Your task to perform on an android device: Search for seafood restaurants on Google Maps Image 0: 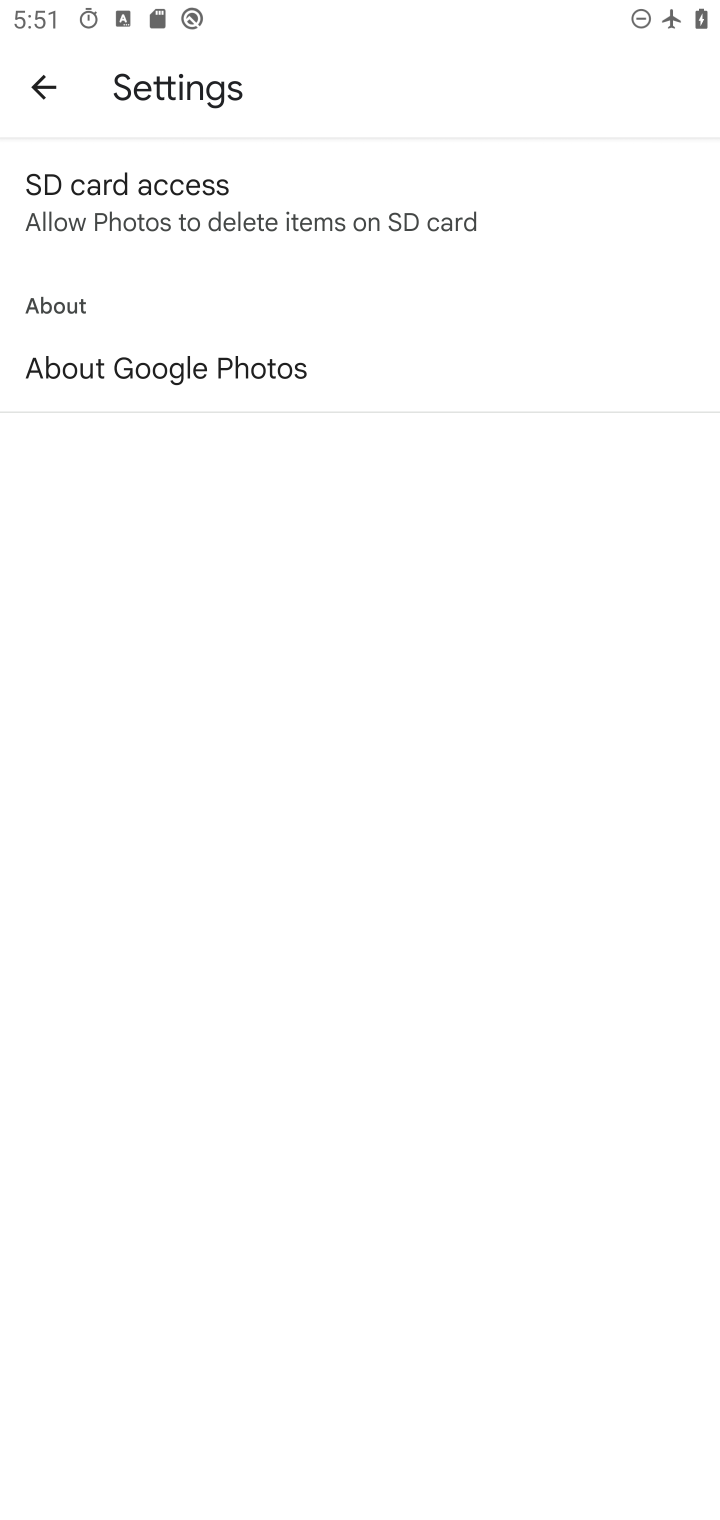
Step 0: press home button
Your task to perform on an android device: Search for seafood restaurants on Google Maps Image 1: 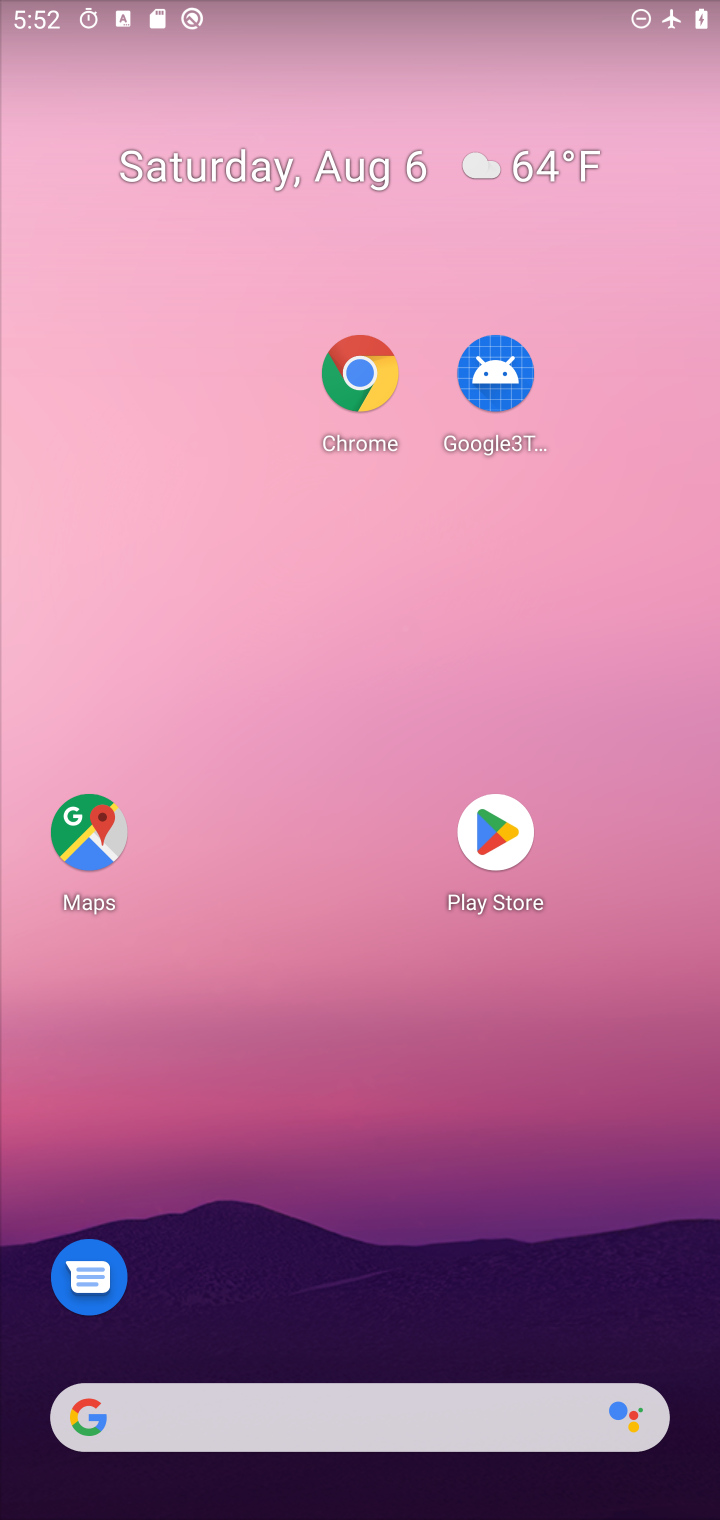
Step 1: drag from (544, 1093) to (600, 277)
Your task to perform on an android device: Search for seafood restaurants on Google Maps Image 2: 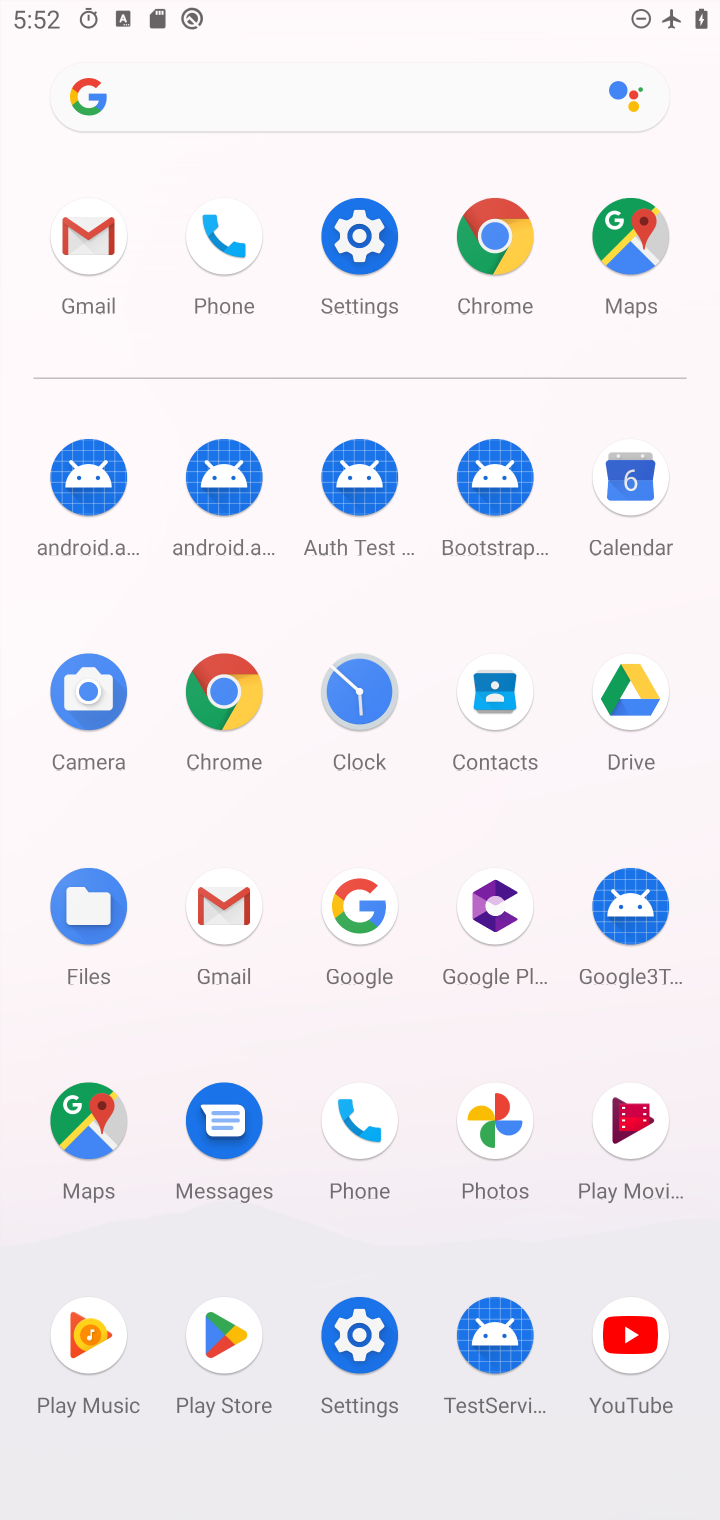
Step 2: click (96, 1139)
Your task to perform on an android device: Search for seafood restaurants on Google Maps Image 3: 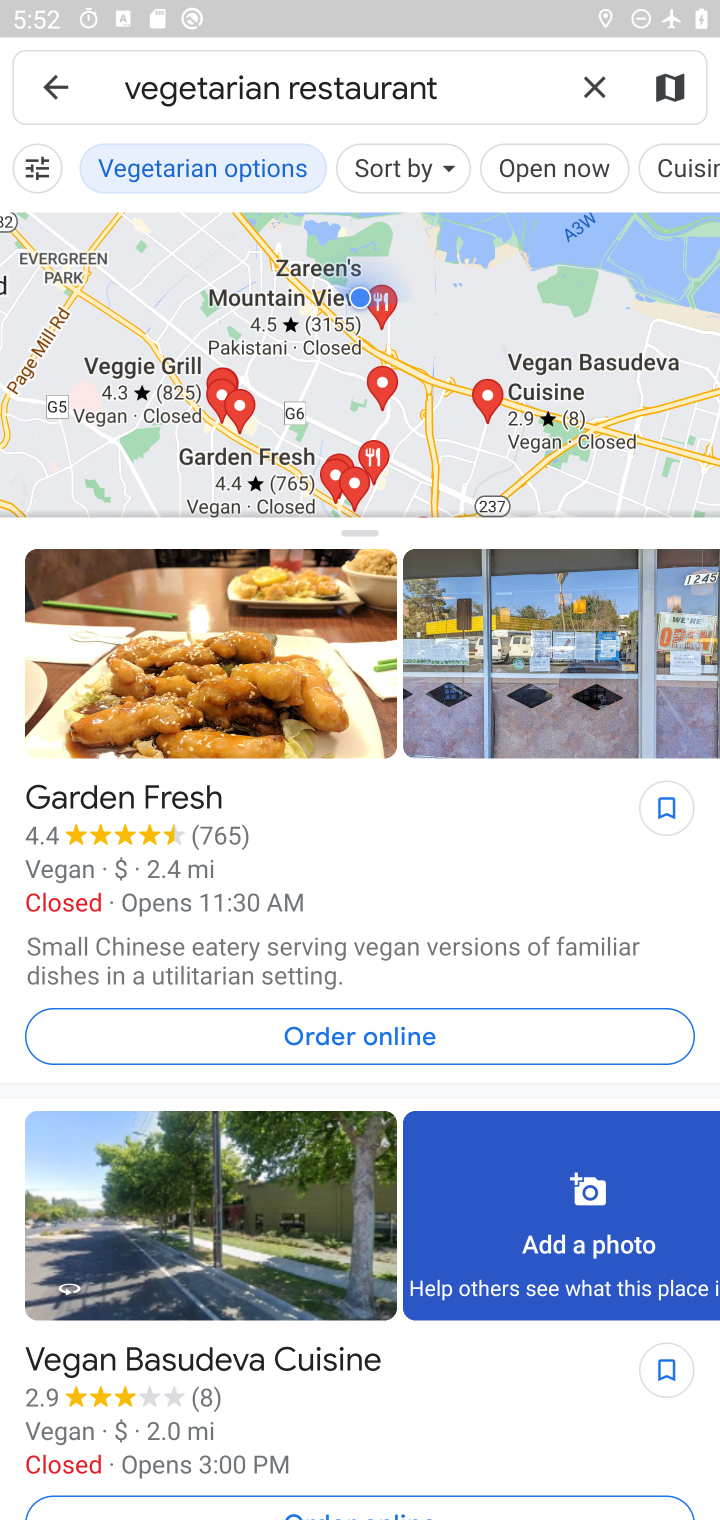
Step 3: click (591, 75)
Your task to perform on an android device: Search for seafood restaurants on Google Maps Image 4: 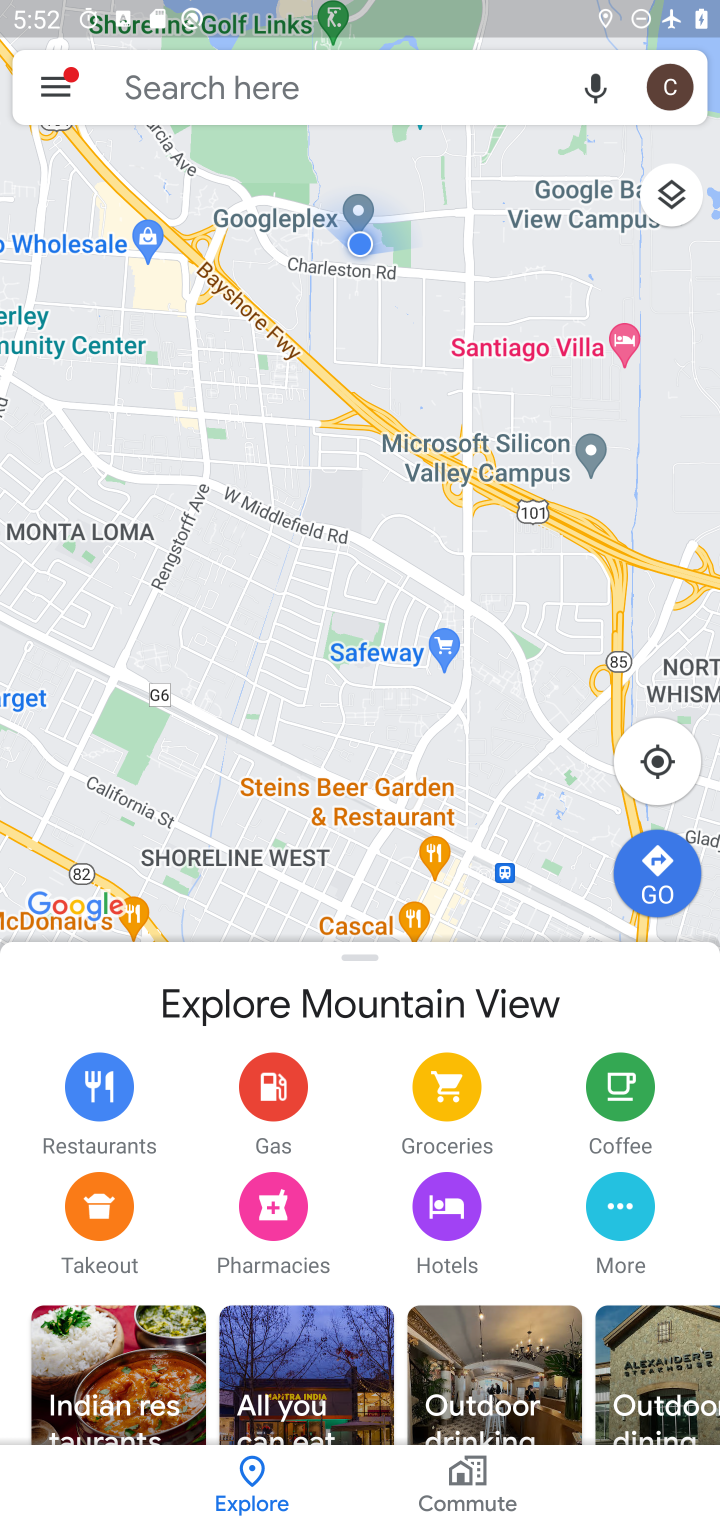
Step 4: click (403, 64)
Your task to perform on an android device: Search for seafood restaurants on Google Maps Image 5: 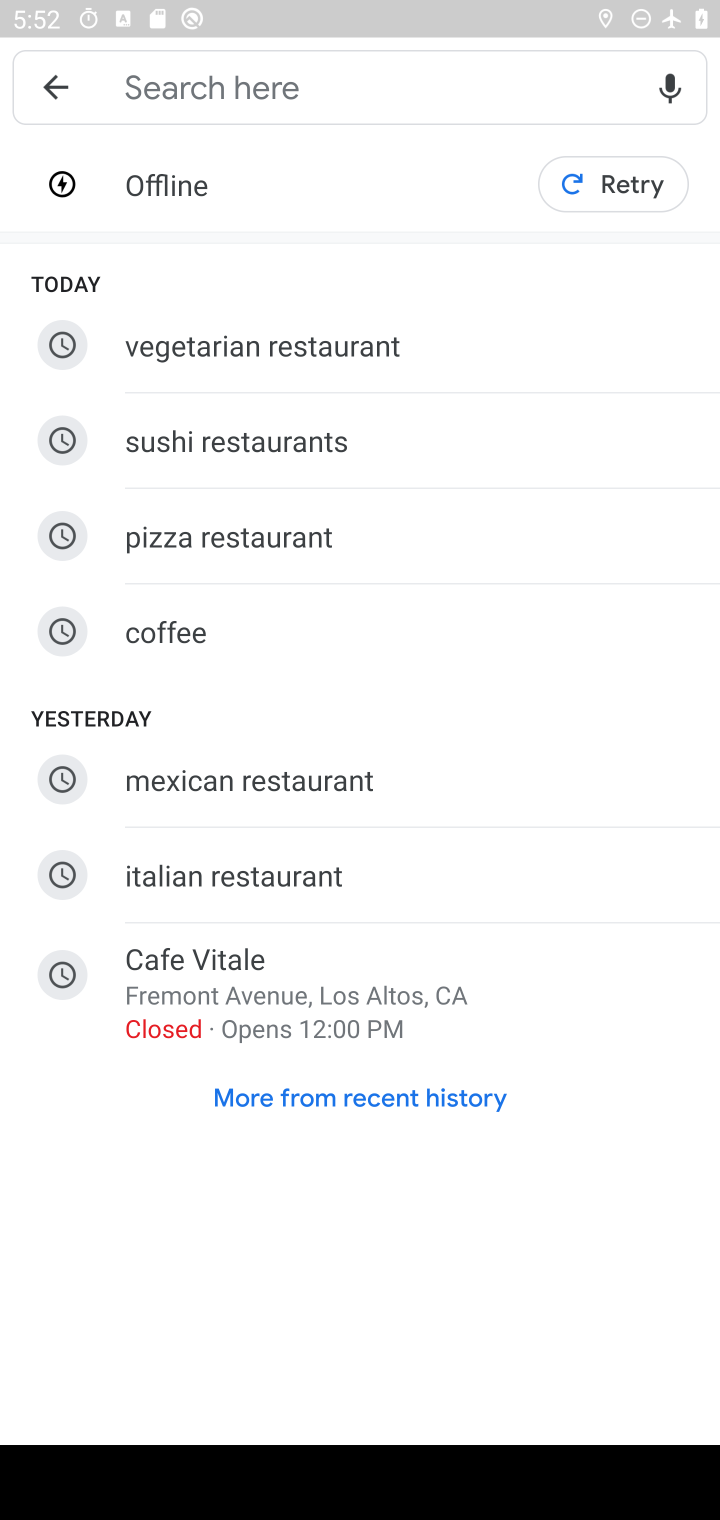
Step 5: type "seafood restaurant"
Your task to perform on an android device: Search for seafood restaurants on Google Maps Image 6: 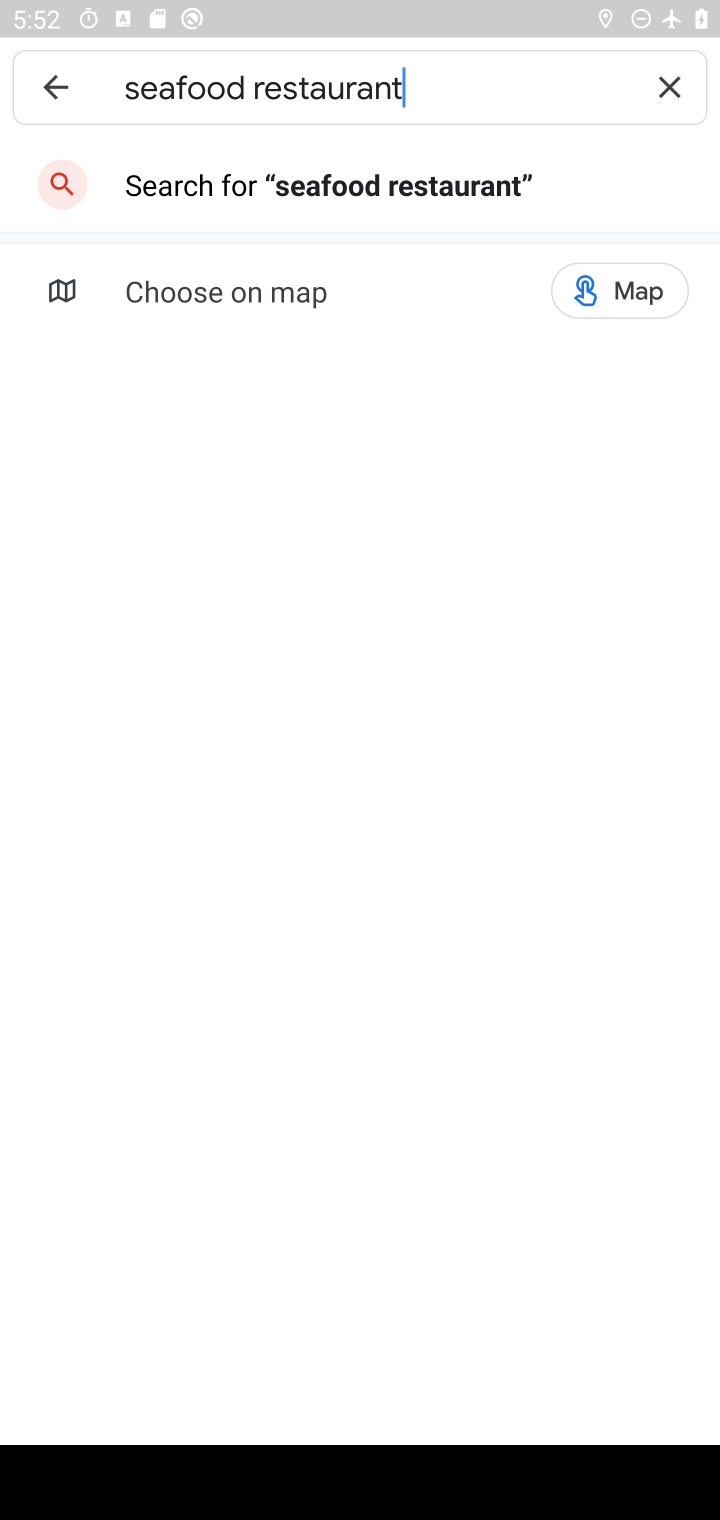
Step 6: task complete